Your task to perform on an android device: Go to Maps Image 0: 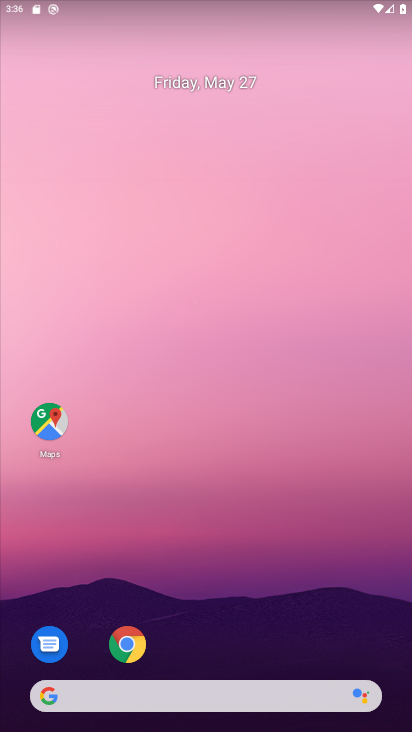
Step 0: click (44, 419)
Your task to perform on an android device: Go to Maps Image 1: 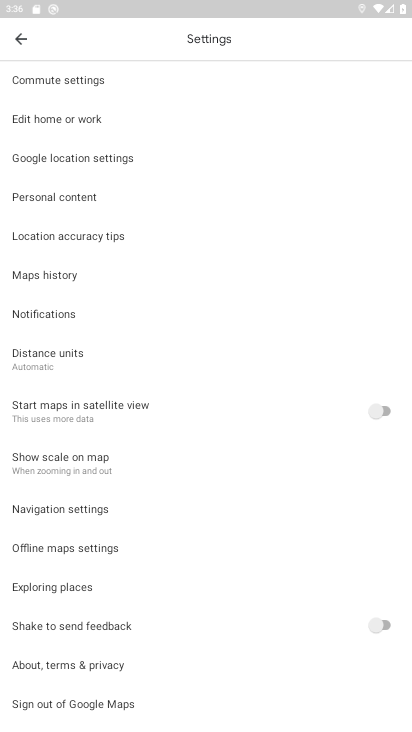
Step 1: click (23, 40)
Your task to perform on an android device: Go to Maps Image 2: 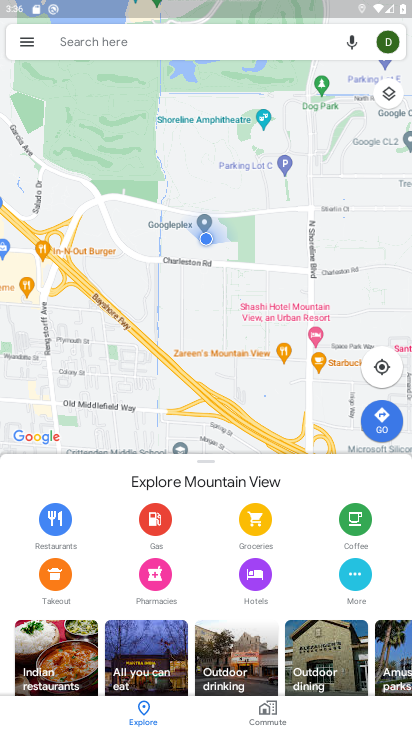
Step 2: task complete